Your task to perform on an android device: refresh tabs in the chrome app Image 0: 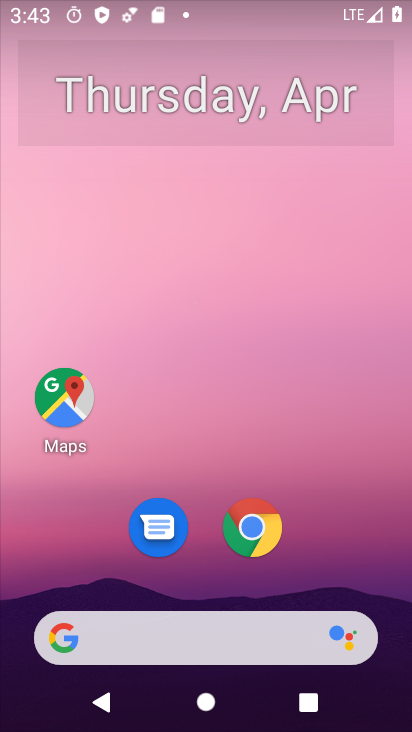
Step 0: click (253, 535)
Your task to perform on an android device: refresh tabs in the chrome app Image 1: 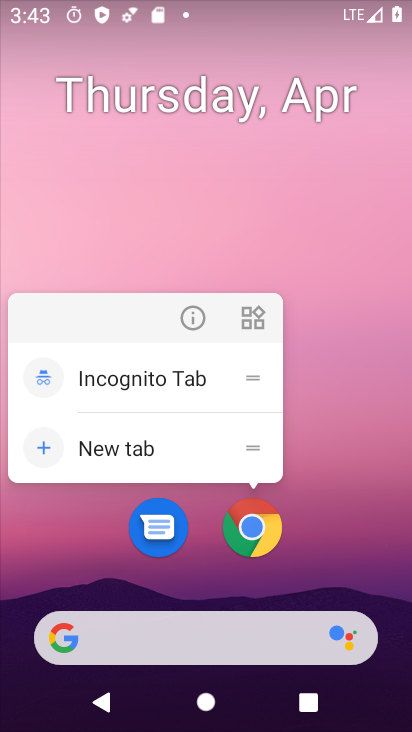
Step 1: click (252, 528)
Your task to perform on an android device: refresh tabs in the chrome app Image 2: 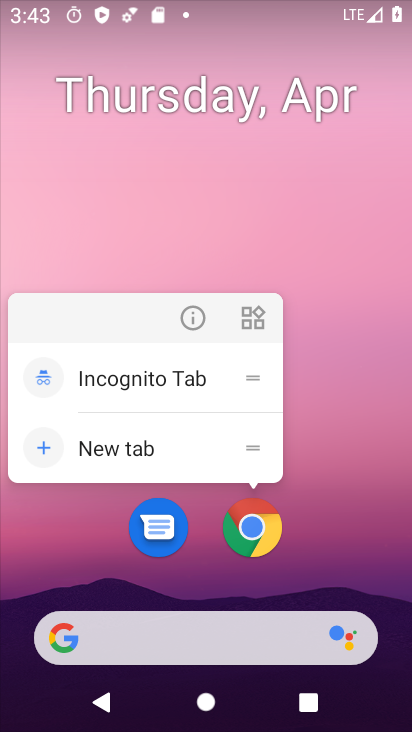
Step 2: click (252, 528)
Your task to perform on an android device: refresh tabs in the chrome app Image 3: 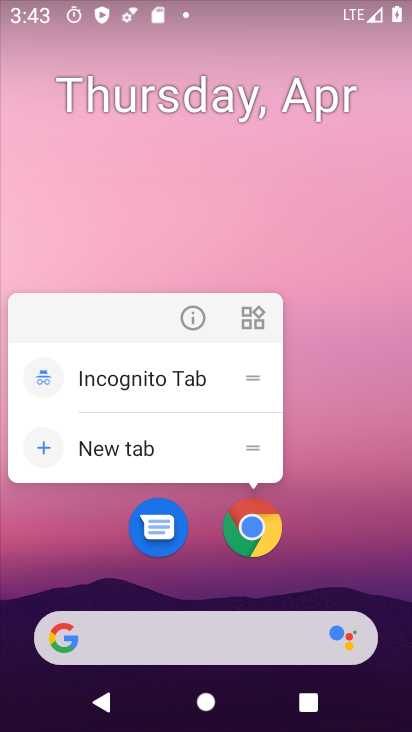
Step 3: click (371, 495)
Your task to perform on an android device: refresh tabs in the chrome app Image 4: 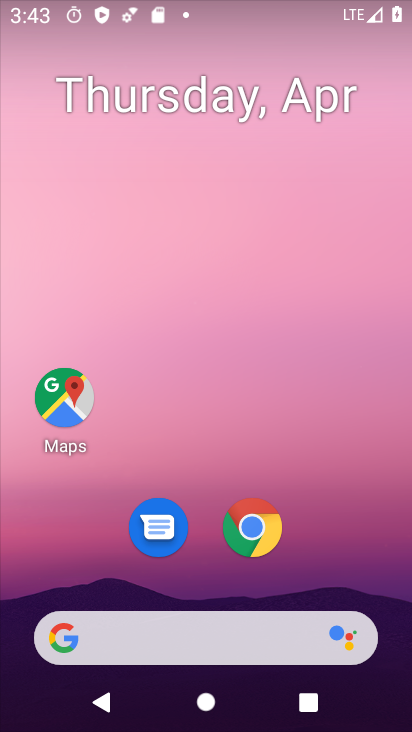
Step 4: drag from (316, 545) to (336, 35)
Your task to perform on an android device: refresh tabs in the chrome app Image 5: 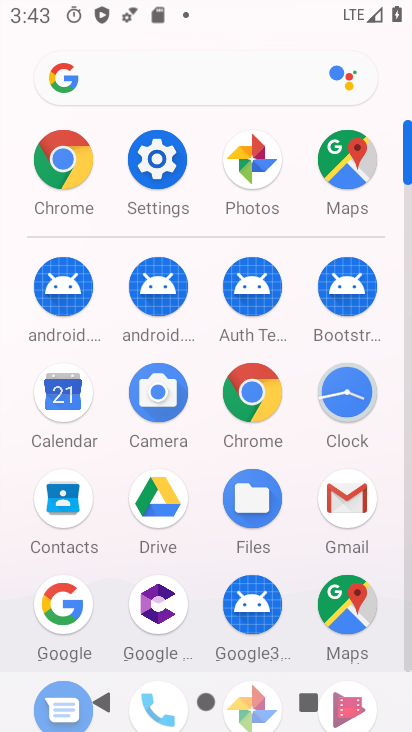
Step 5: click (256, 385)
Your task to perform on an android device: refresh tabs in the chrome app Image 6: 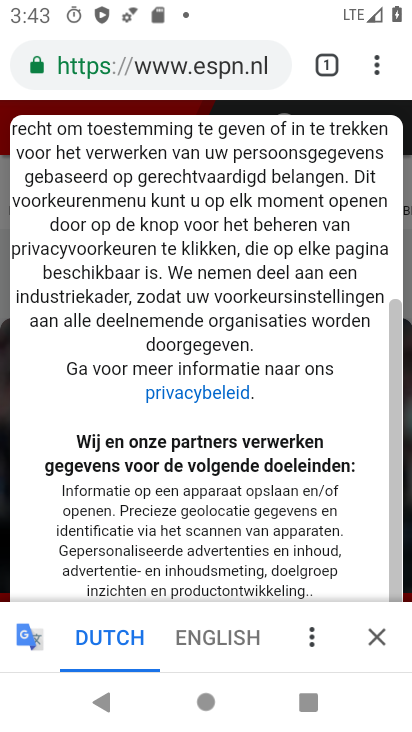
Step 6: click (381, 59)
Your task to perform on an android device: refresh tabs in the chrome app Image 7: 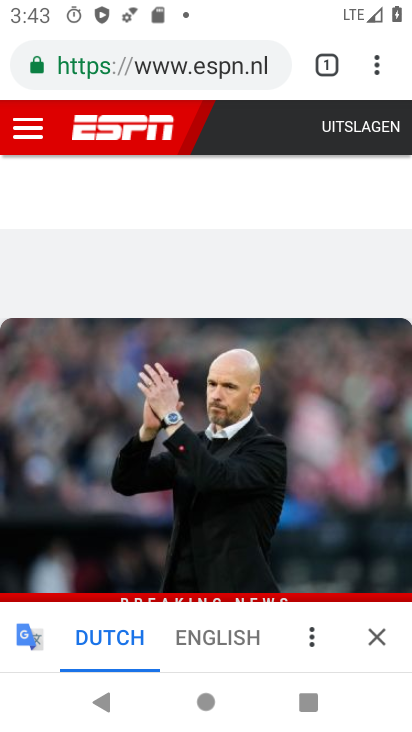
Step 7: task complete